Your task to perform on an android device: open device folders in google photos Image 0: 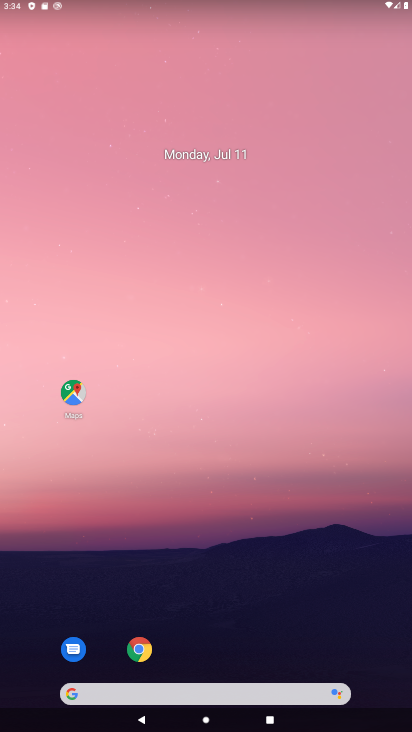
Step 0: drag from (251, 629) to (212, 37)
Your task to perform on an android device: open device folders in google photos Image 1: 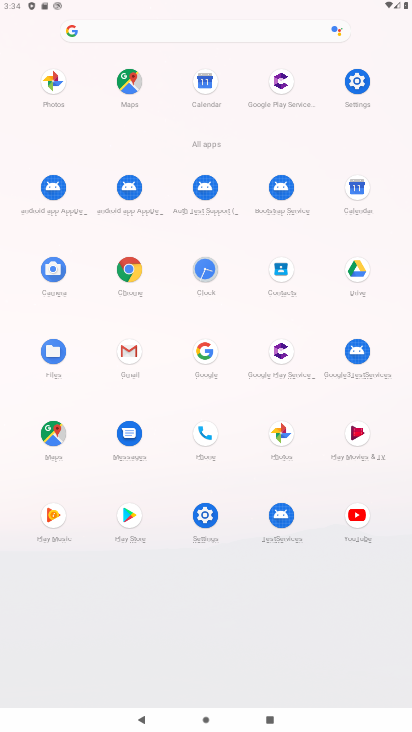
Step 1: click (284, 436)
Your task to perform on an android device: open device folders in google photos Image 2: 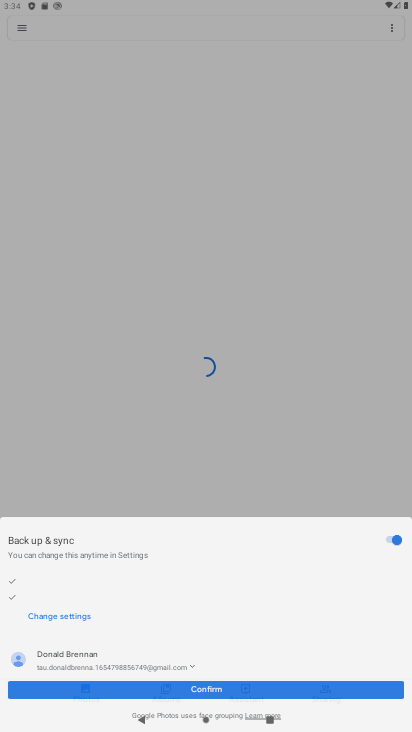
Step 2: click (24, 24)
Your task to perform on an android device: open device folders in google photos Image 3: 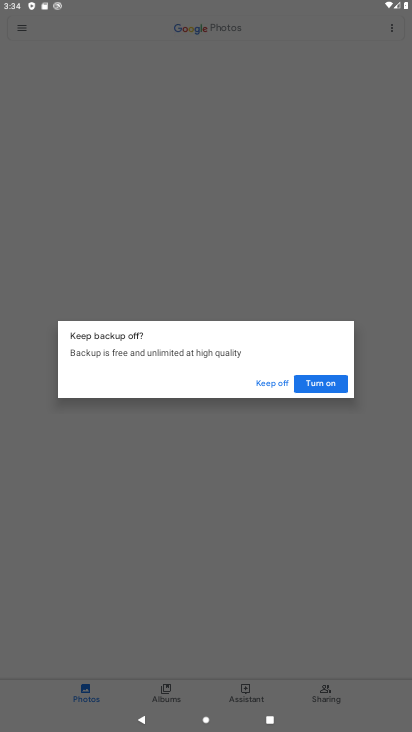
Step 3: click (282, 386)
Your task to perform on an android device: open device folders in google photos Image 4: 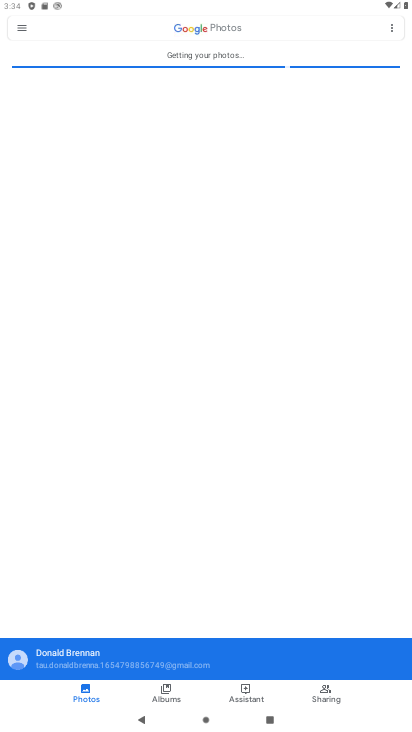
Step 4: click (23, 28)
Your task to perform on an android device: open device folders in google photos Image 5: 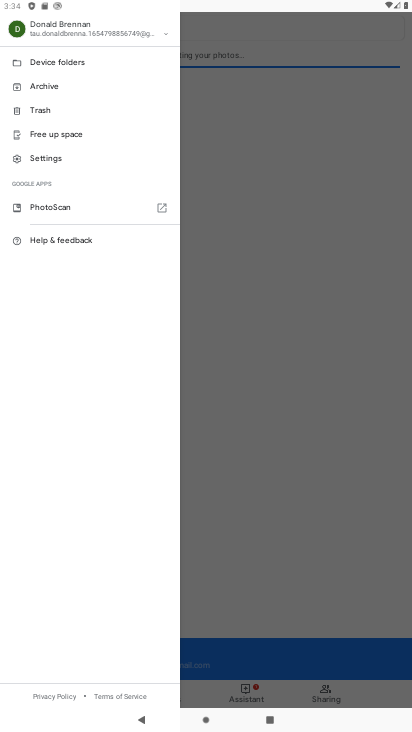
Step 5: click (58, 62)
Your task to perform on an android device: open device folders in google photos Image 6: 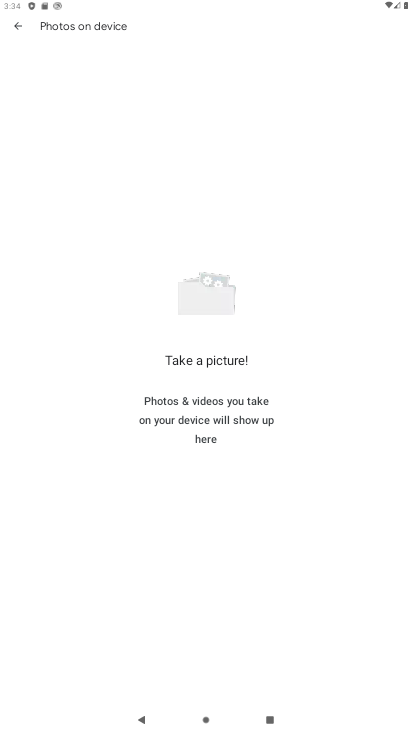
Step 6: task complete